Your task to perform on an android device: Go to accessibility settings Image 0: 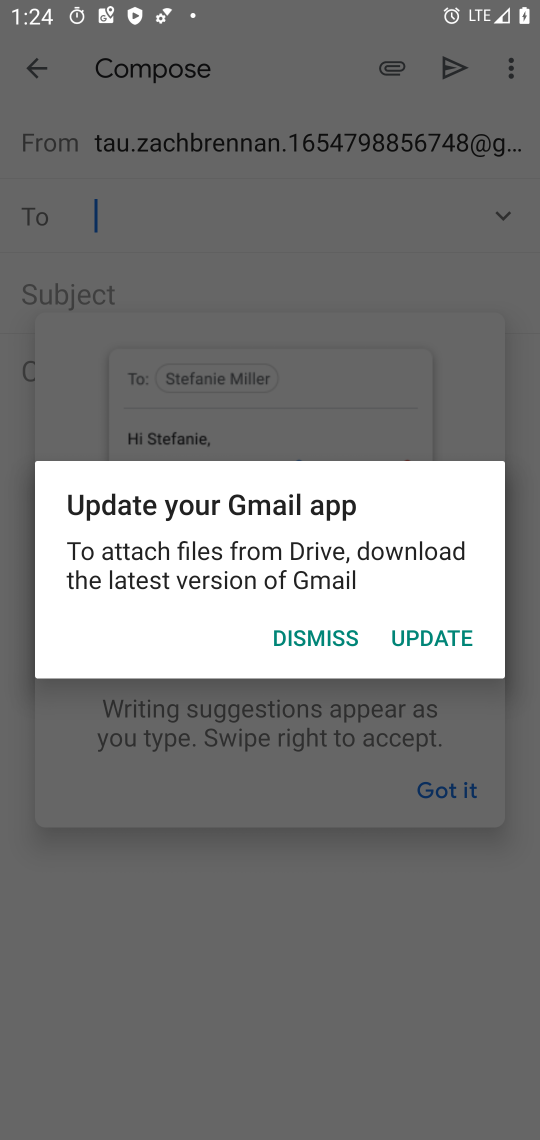
Step 0: press home button
Your task to perform on an android device: Go to accessibility settings Image 1: 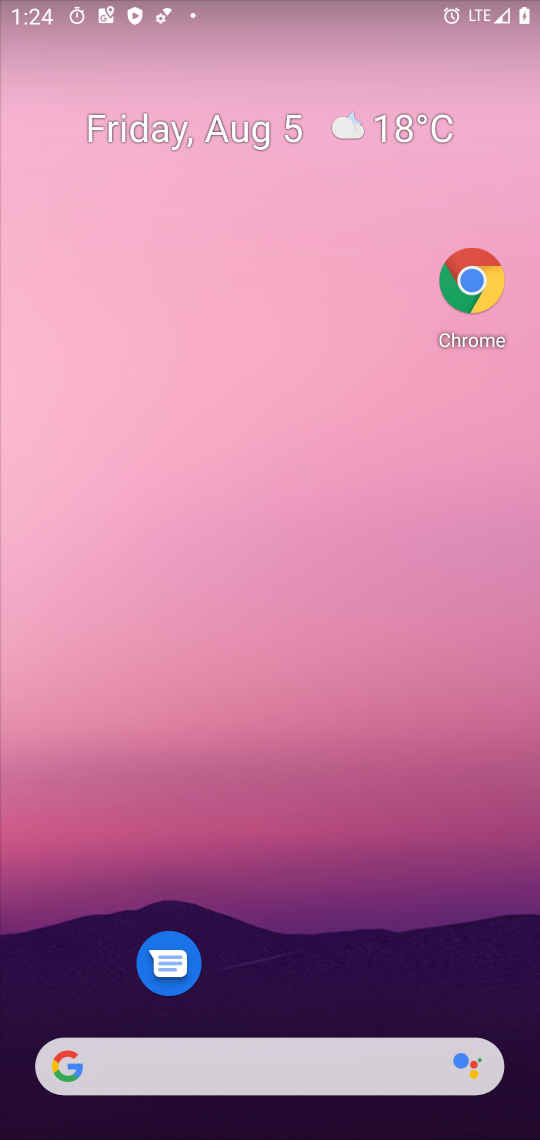
Step 1: drag from (241, 902) to (257, 1)
Your task to perform on an android device: Go to accessibility settings Image 2: 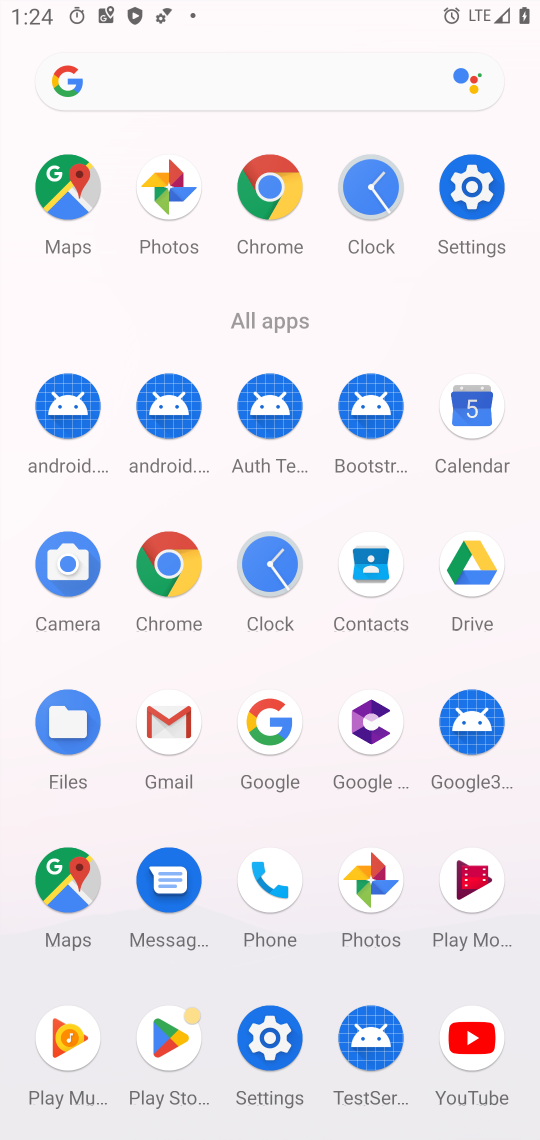
Step 2: click (480, 179)
Your task to perform on an android device: Go to accessibility settings Image 3: 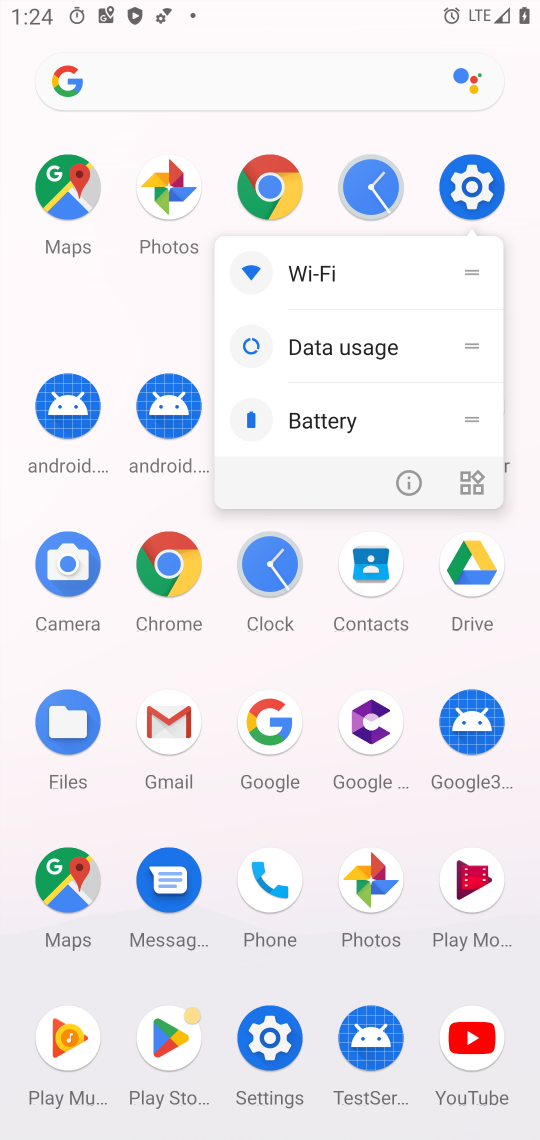
Step 3: click (473, 181)
Your task to perform on an android device: Go to accessibility settings Image 4: 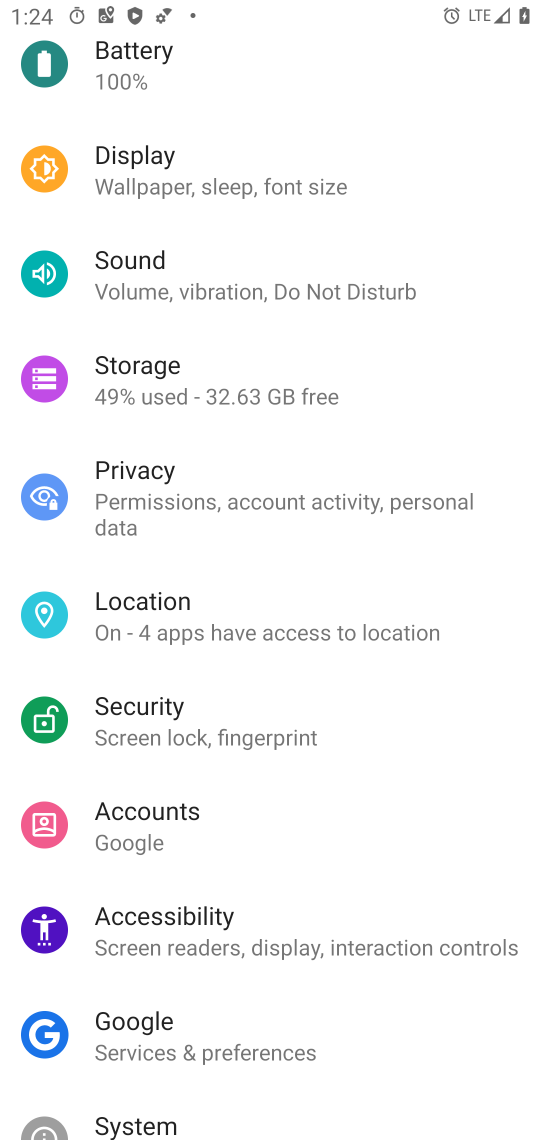
Step 4: click (234, 947)
Your task to perform on an android device: Go to accessibility settings Image 5: 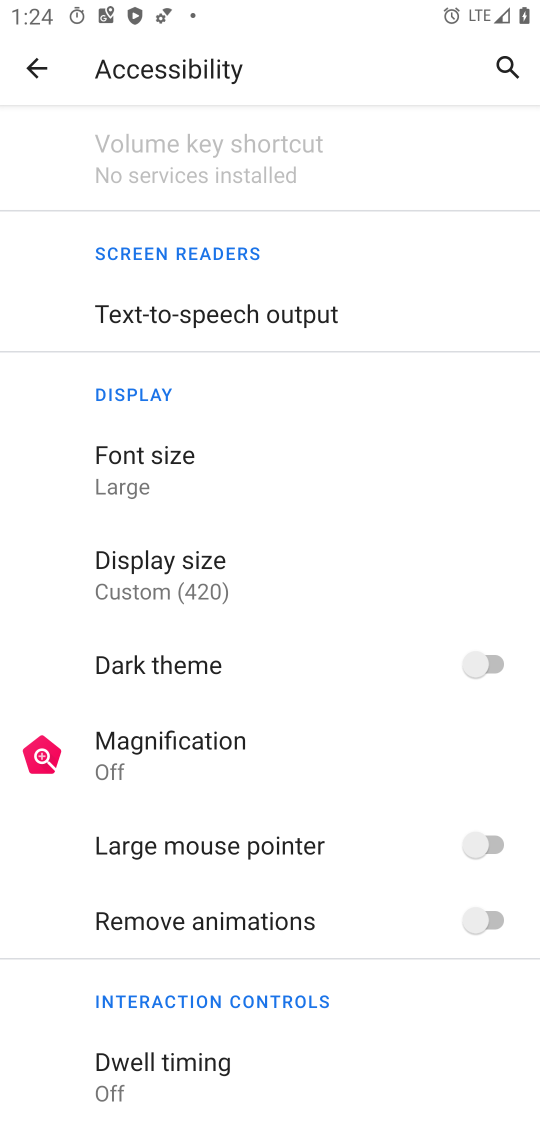
Step 5: task complete